Your task to perform on an android device: uninstall "Skype" Image 0: 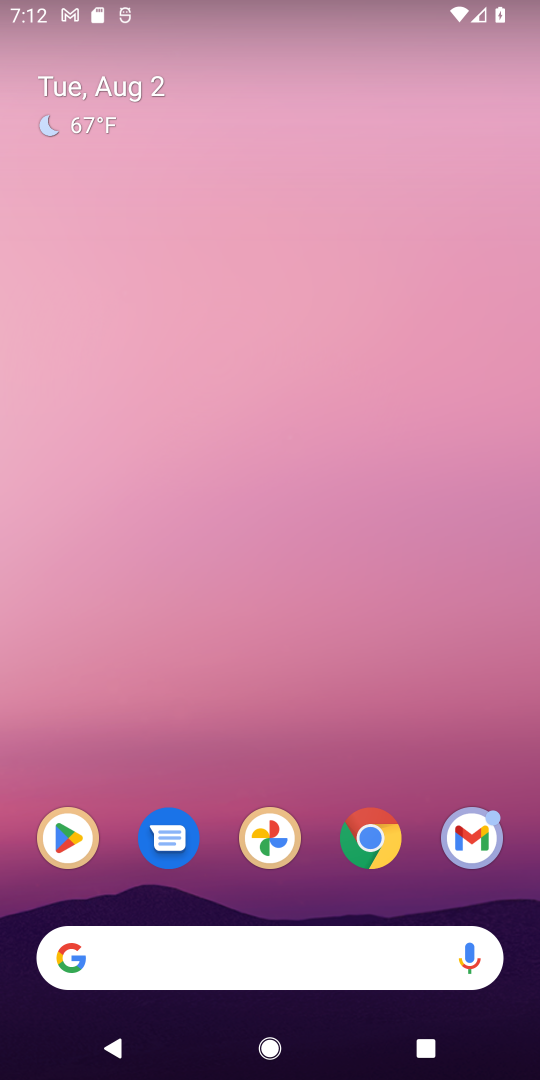
Step 0: click (52, 854)
Your task to perform on an android device: uninstall "Skype" Image 1: 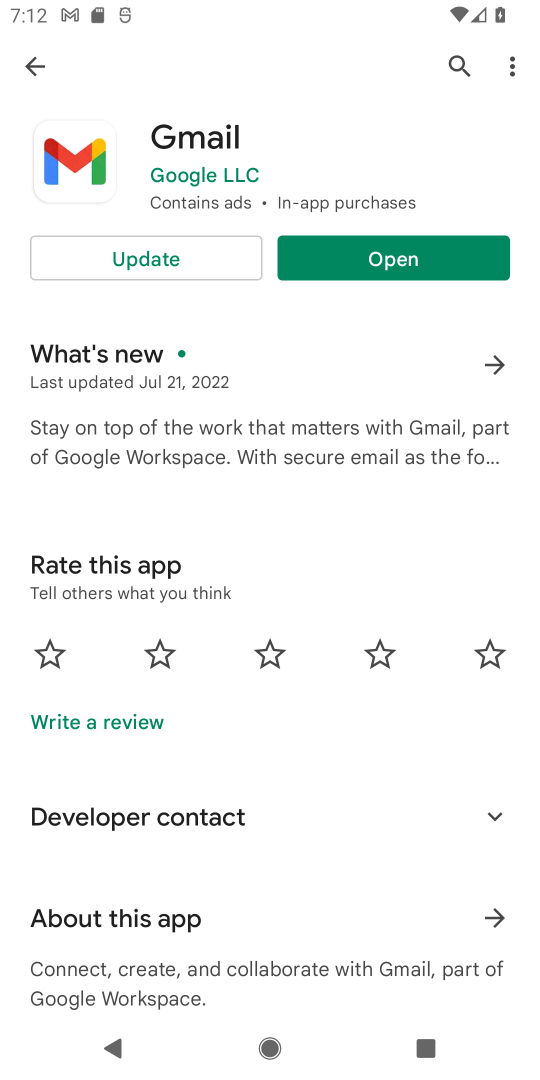
Step 1: click (77, 832)
Your task to perform on an android device: uninstall "Skype" Image 2: 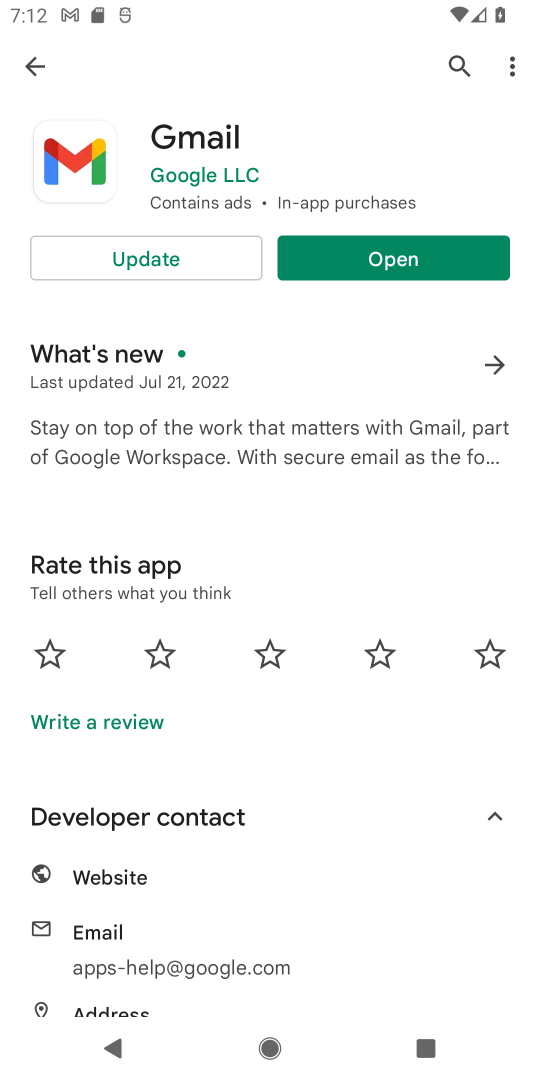
Step 2: click (445, 53)
Your task to perform on an android device: uninstall "Skype" Image 3: 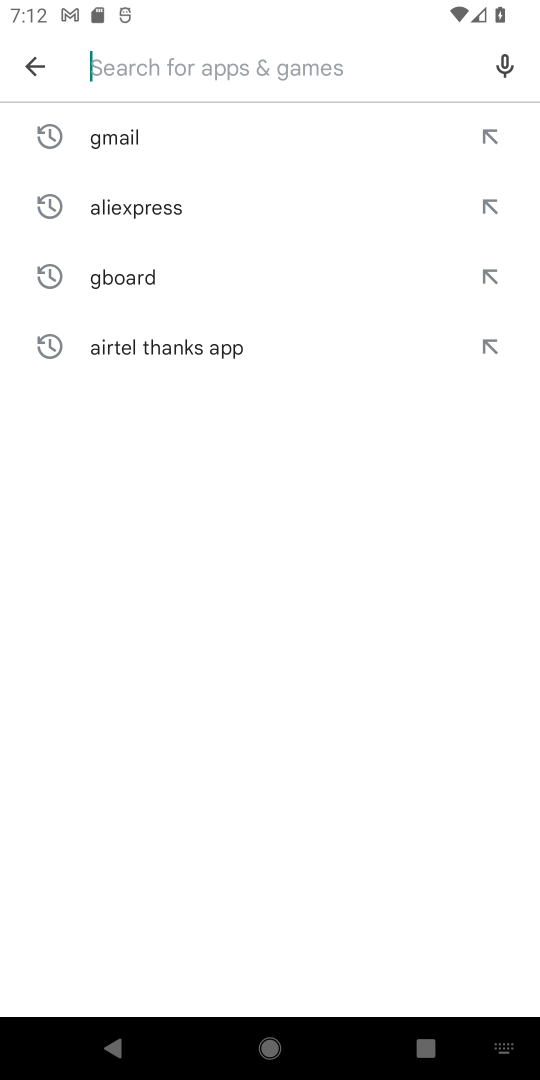
Step 3: type "skype"
Your task to perform on an android device: uninstall "Skype" Image 4: 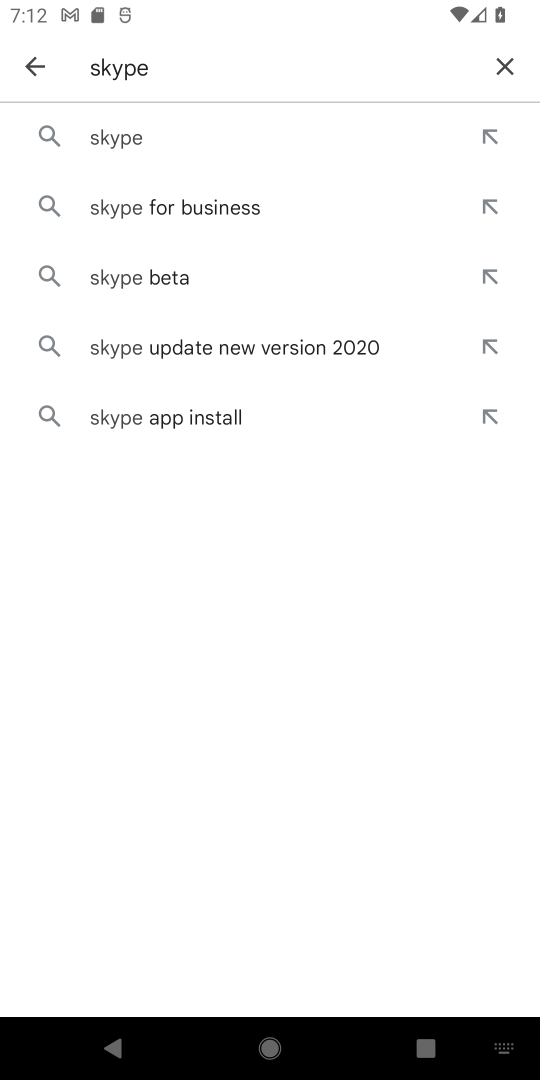
Step 4: click (71, 140)
Your task to perform on an android device: uninstall "Skype" Image 5: 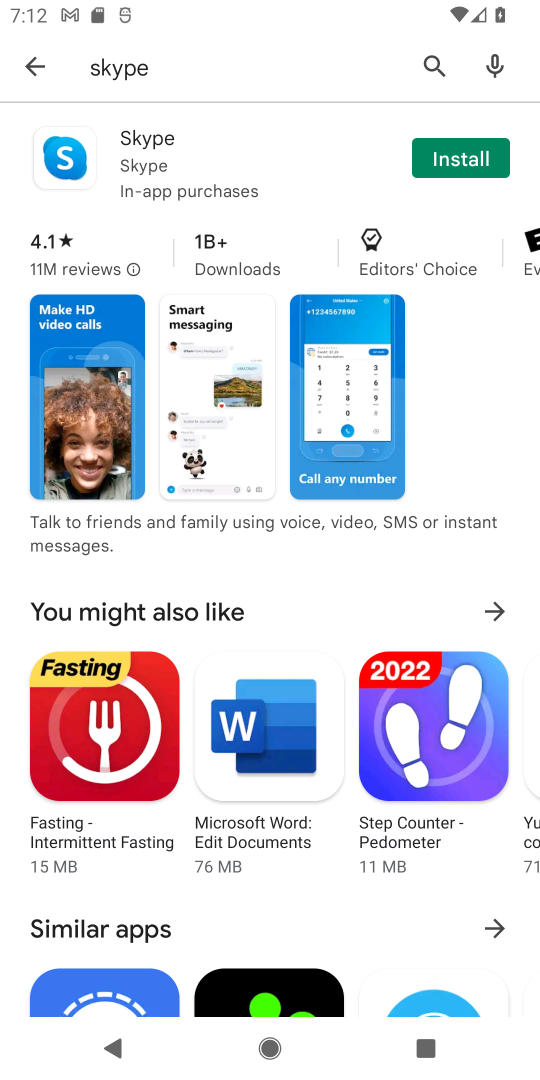
Step 5: click (156, 145)
Your task to perform on an android device: uninstall "Skype" Image 6: 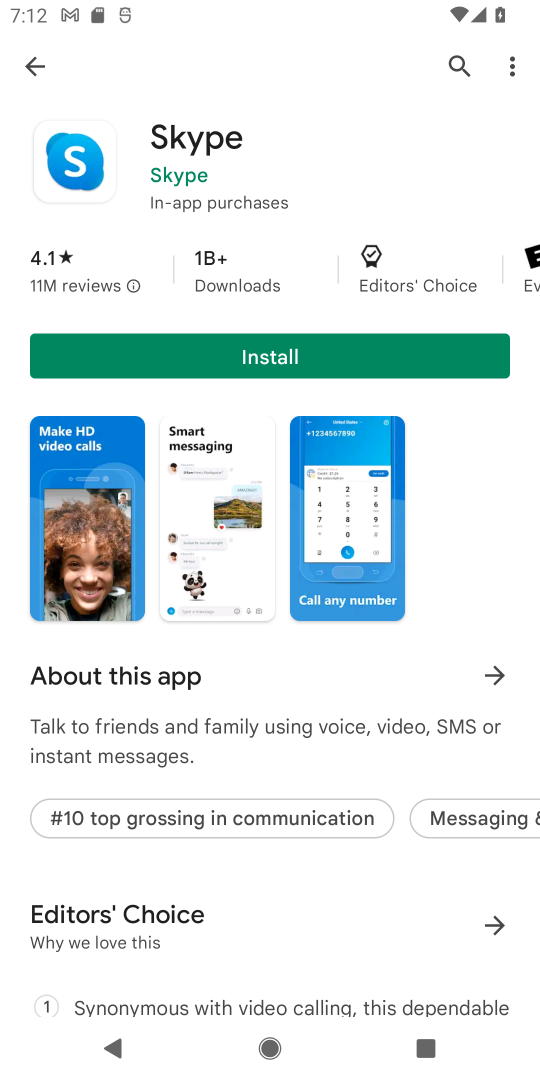
Step 6: task complete